Your task to perform on an android device: Open Amazon Image 0: 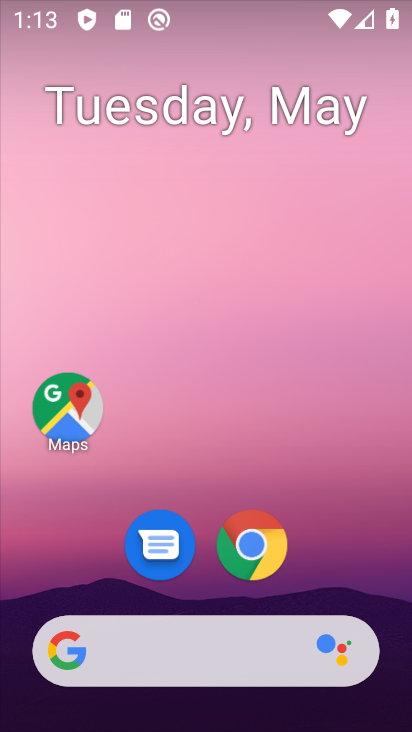
Step 0: click (250, 541)
Your task to perform on an android device: Open Amazon Image 1: 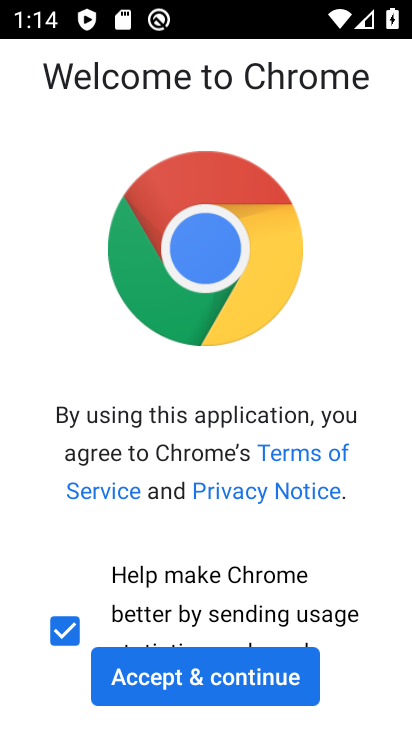
Step 1: click (151, 671)
Your task to perform on an android device: Open Amazon Image 2: 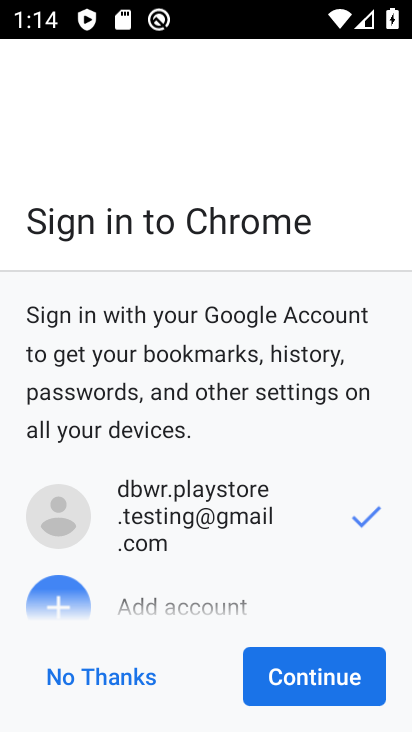
Step 2: click (321, 665)
Your task to perform on an android device: Open Amazon Image 3: 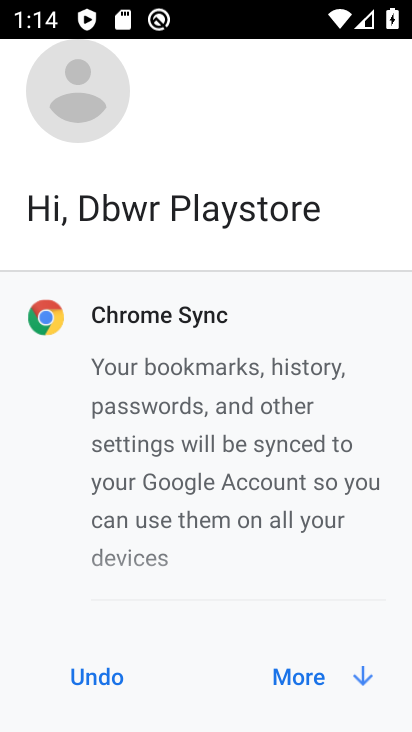
Step 3: click (319, 673)
Your task to perform on an android device: Open Amazon Image 4: 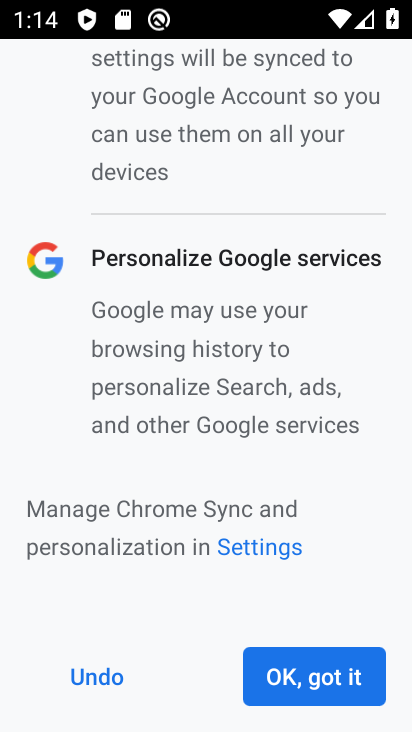
Step 4: click (319, 673)
Your task to perform on an android device: Open Amazon Image 5: 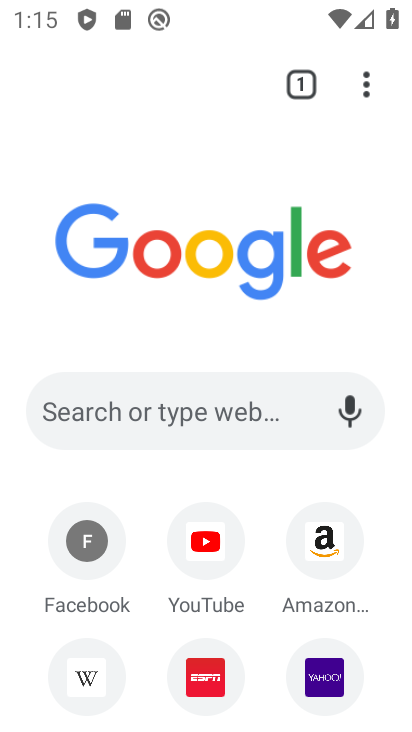
Step 5: click (323, 534)
Your task to perform on an android device: Open Amazon Image 6: 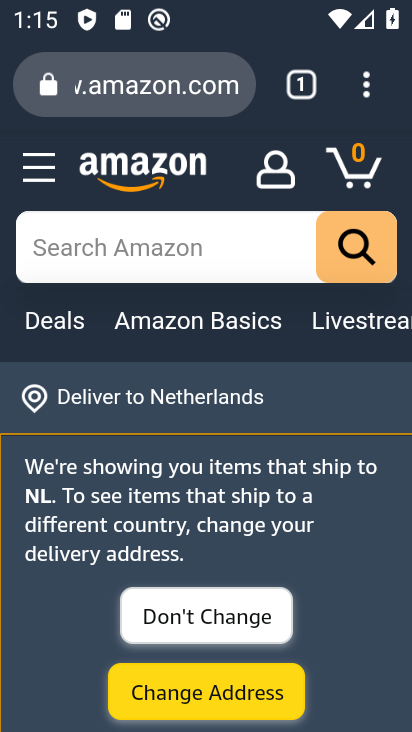
Step 6: task complete